Your task to perform on an android device: Toggle the flashlight Image 0: 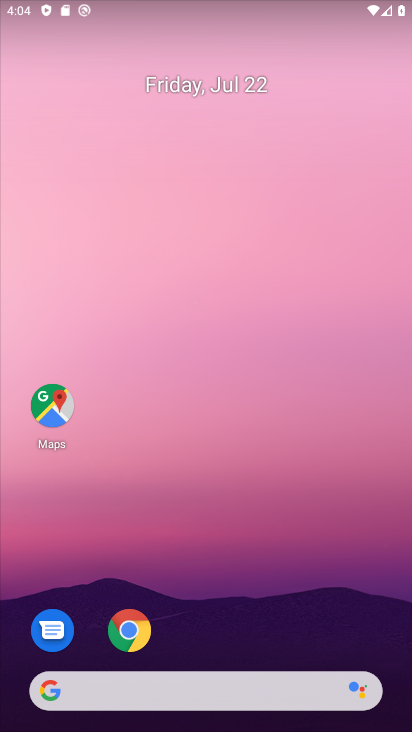
Step 0: drag from (197, 566) to (208, 109)
Your task to perform on an android device: Toggle the flashlight Image 1: 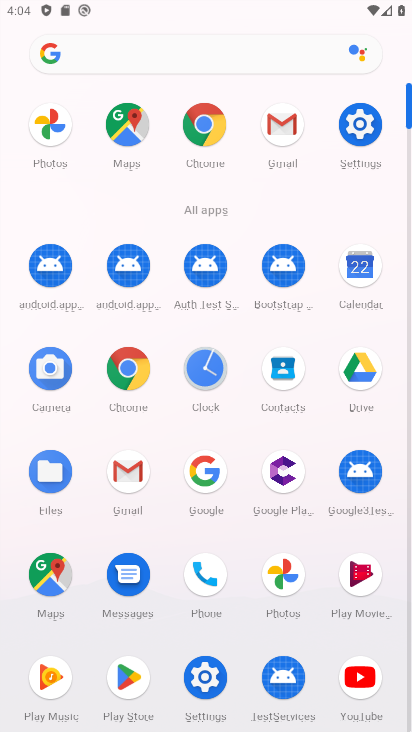
Step 1: click (362, 124)
Your task to perform on an android device: Toggle the flashlight Image 2: 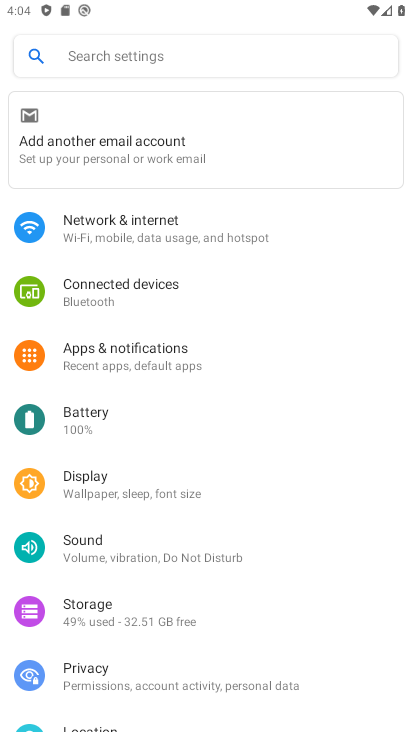
Step 2: task complete